Your task to perform on an android device: Do I have any events tomorrow? Image 0: 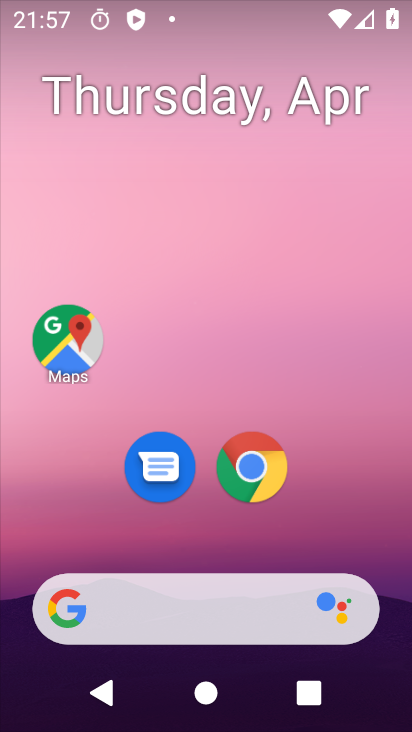
Step 0: drag from (226, 561) to (169, 17)
Your task to perform on an android device: Do I have any events tomorrow? Image 1: 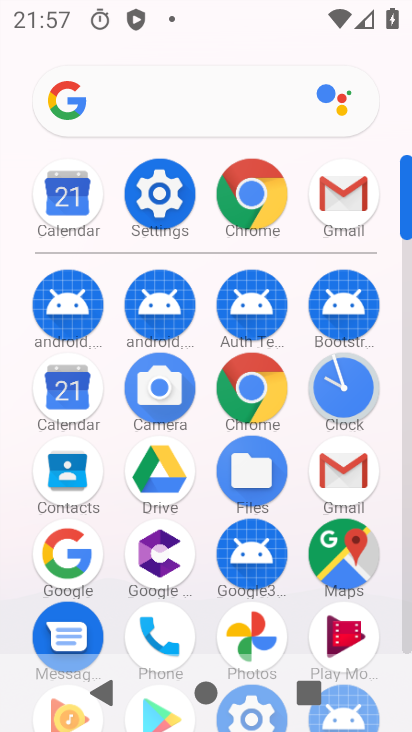
Step 1: click (87, 392)
Your task to perform on an android device: Do I have any events tomorrow? Image 2: 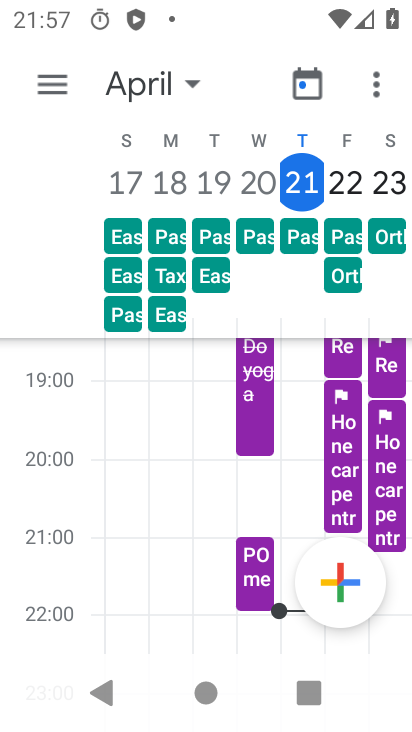
Step 2: click (349, 185)
Your task to perform on an android device: Do I have any events tomorrow? Image 3: 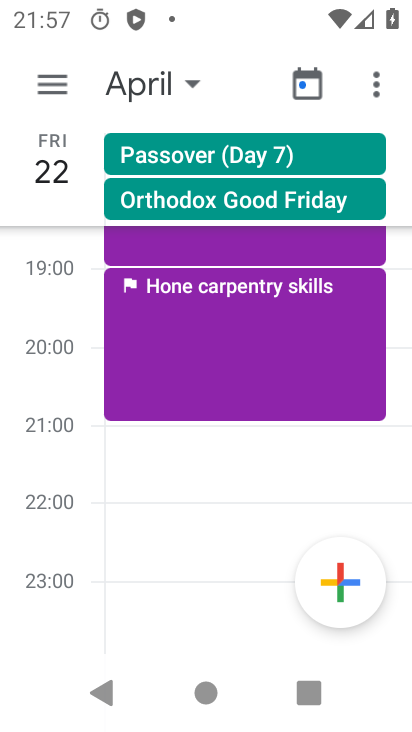
Step 3: task complete